Your task to perform on an android device: Open calendar and show me the second week of next month Image 0: 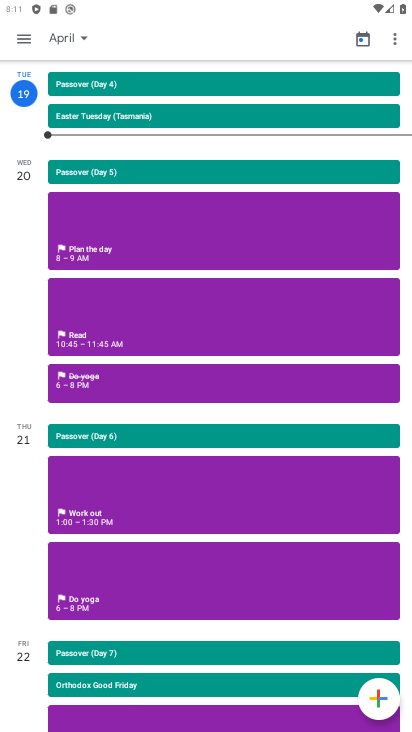
Step 0: drag from (261, 611) to (354, 249)
Your task to perform on an android device: Open calendar and show me the second week of next month Image 1: 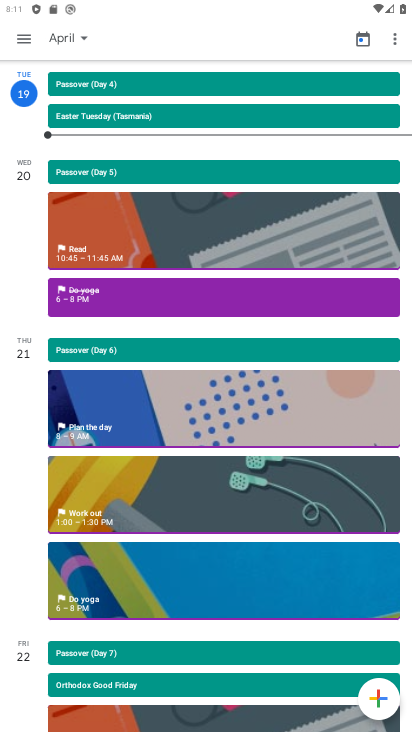
Step 1: click (51, 42)
Your task to perform on an android device: Open calendar and show me the second week of next month Image 2: 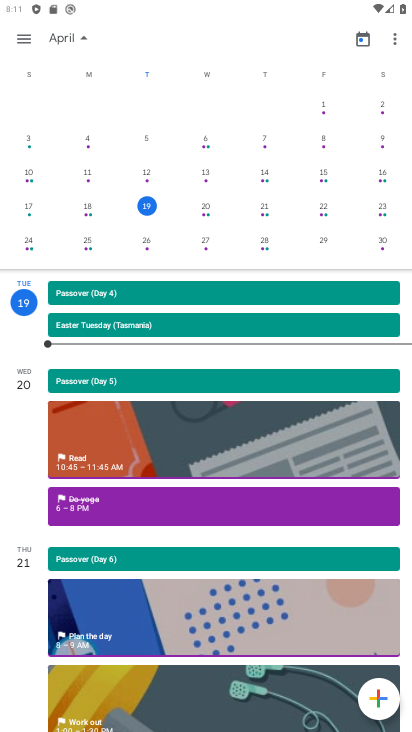
Step 2: drag from (263, 180) to (1, 170)
Your task to perform on an android device: Open calendar and show me the second week of next month Image 3: 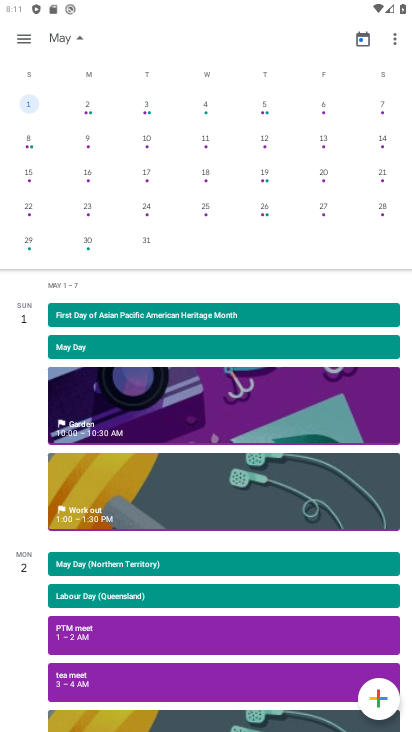
Step 3: click (33, 141)
Your task to perform on an android device: Open calendar and show me the second week of next month Image 4: 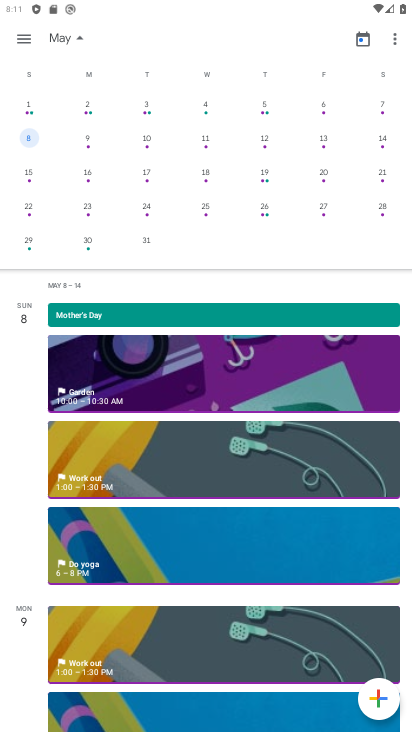
Step 4: click (93, 145)
Your task to perform on an android device: Open calendar and show me the second week of next month Image 5: 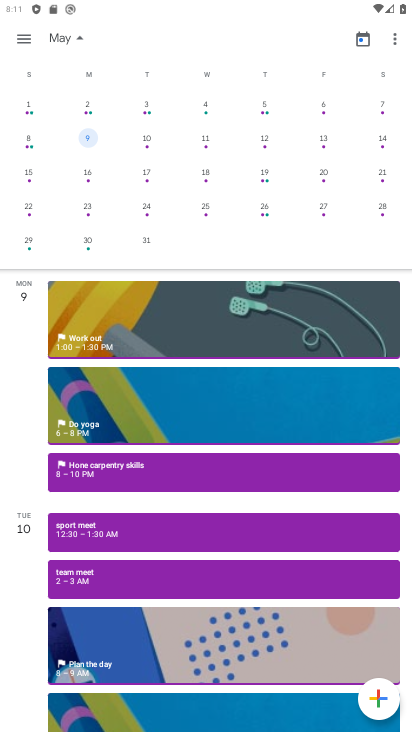
Step 5: click (151, 142)
Your task to perform on an android device: Open calendar and show me the second week of next month Image 6: 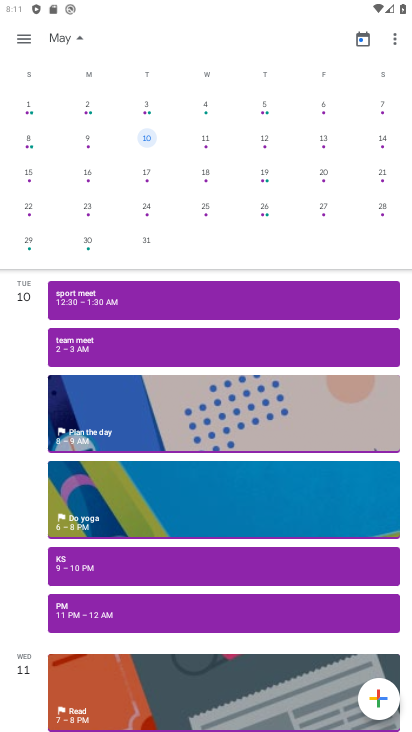
Step 6: click (212, 146)
Your task to perform on an android device: Open calendar and show me the second week of next month Image 7: 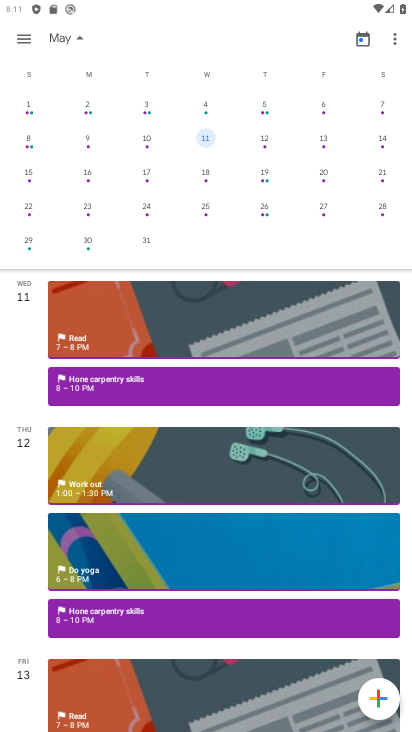
Step 7: click (268, 144)
Your task to perform on an android device: Open calendar and show me the second week of next month Image 8: 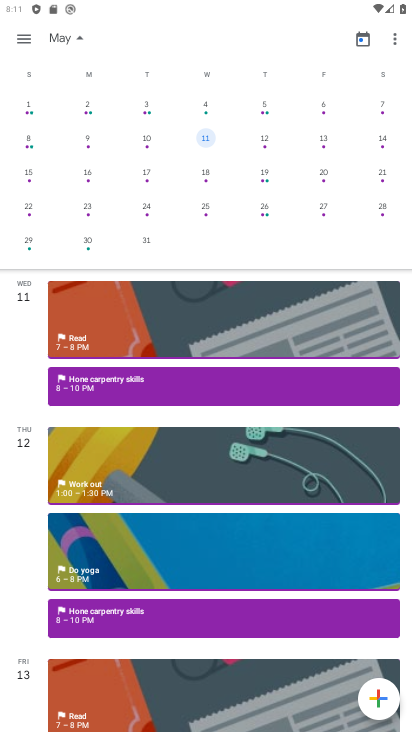
Step 8: click (332, 140)
Your task to perform on an android device: Open calendar and show me the second week of next month Image 9: 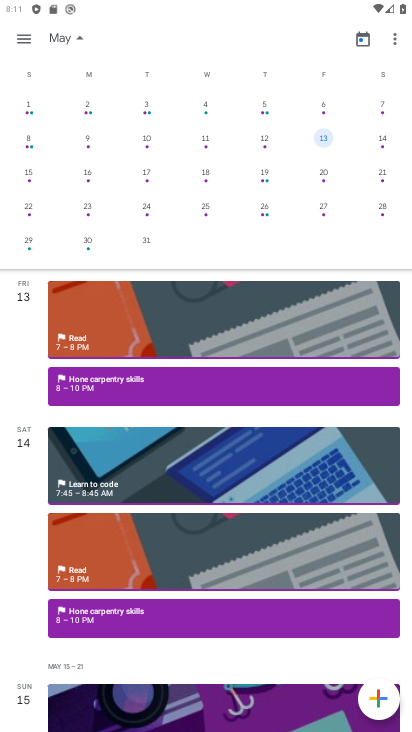
Step 9: click (385, 142)
Your task to perform on an android device: Open calendar and show me the second week of next month Image 10: 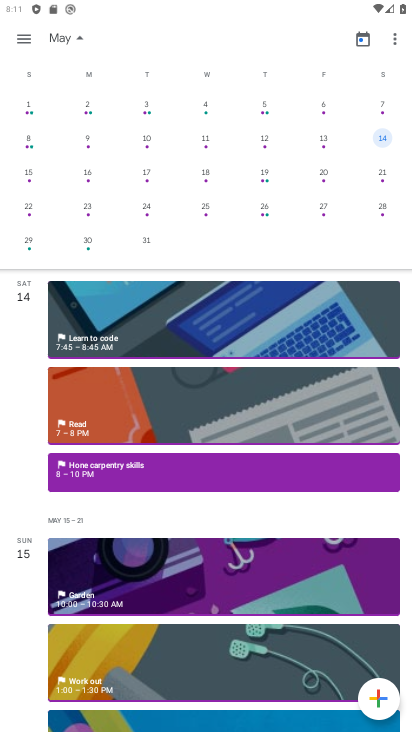
Step 10: task complete